Your task to perform on an android device: Open eBay Image 0: 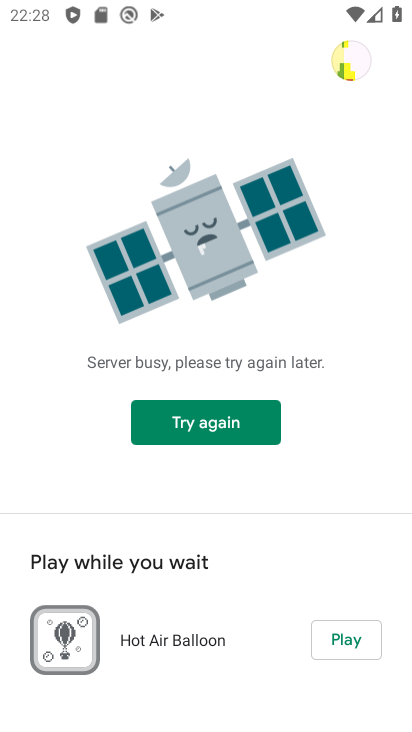
Step 0: press home button
Your task to perform on an android device: Open eBay Image 1: 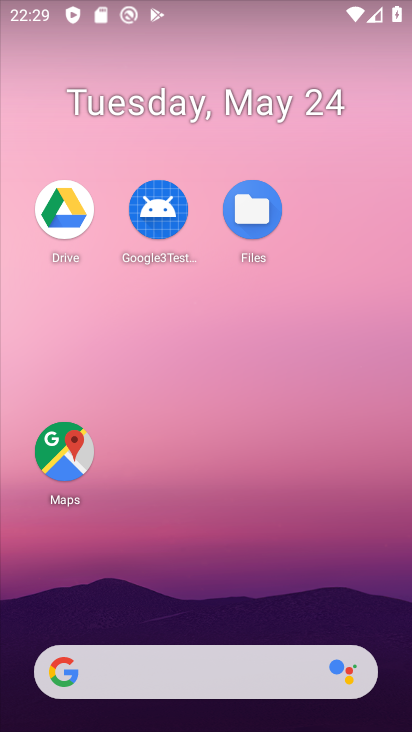
Step 1: drag from (235, 610) to (241, 90)
Your task to perform on an android device: Open eBay Image 2: 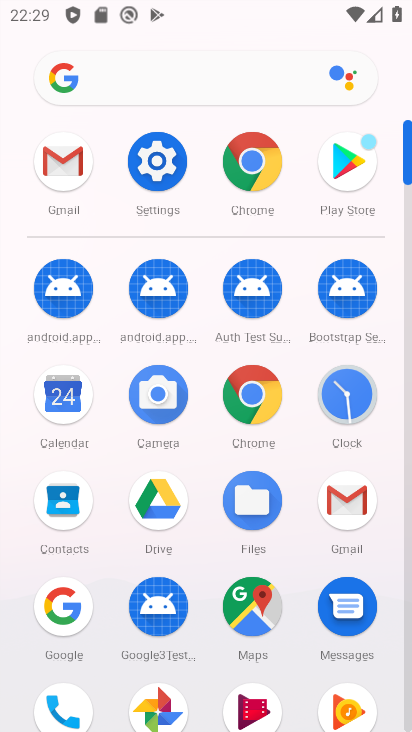
Step 2: click (260, 400)
Your task to perform on an android device: Open eBay Image 3: 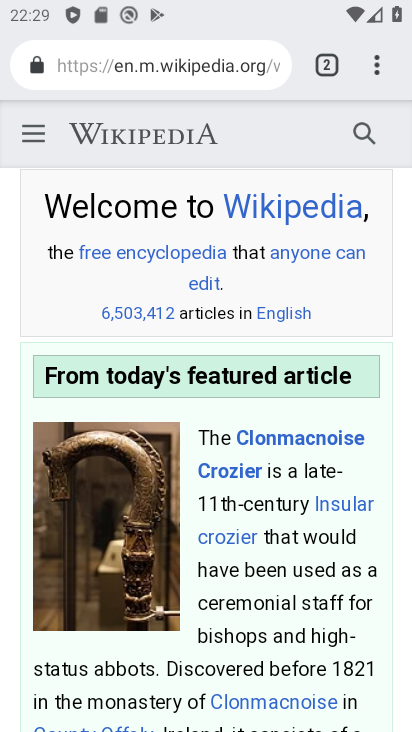
Step 3: click (323, 74)
Your task to perform on an android device: Open eBay Image 4: 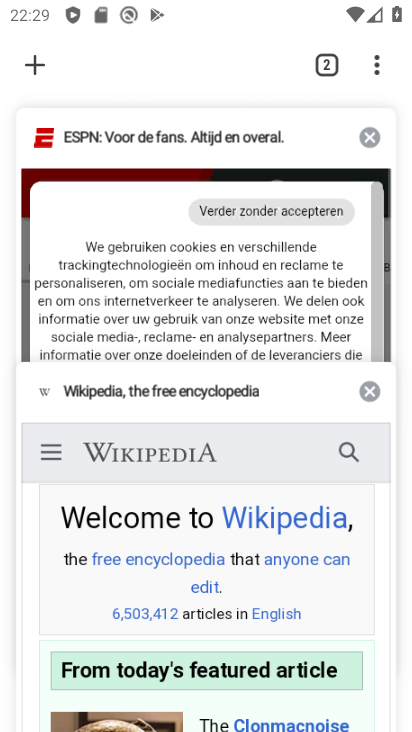
Step 4: click (34, 62)
Your task to perform on an android device: Open eBay Image 5: 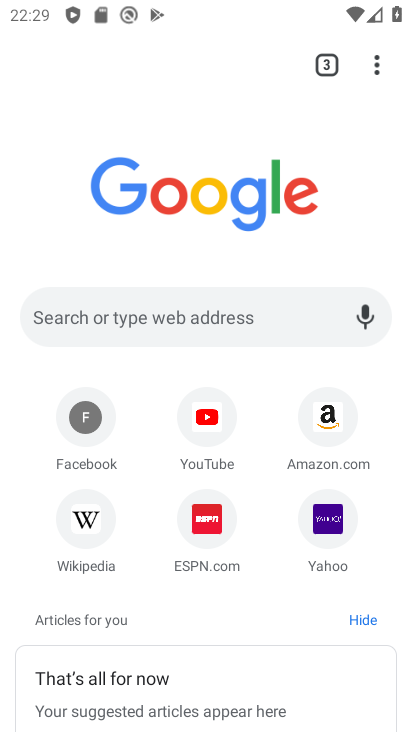
Step 5: click (253, 329)
Your task to perform on an android device: Open eBay Image 6: 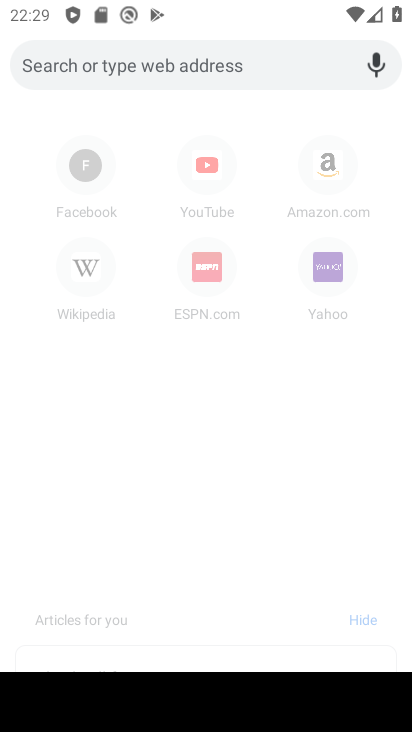
Step 6: type "ebay"
Your task to perform on an android device: Open eBay Image 7: 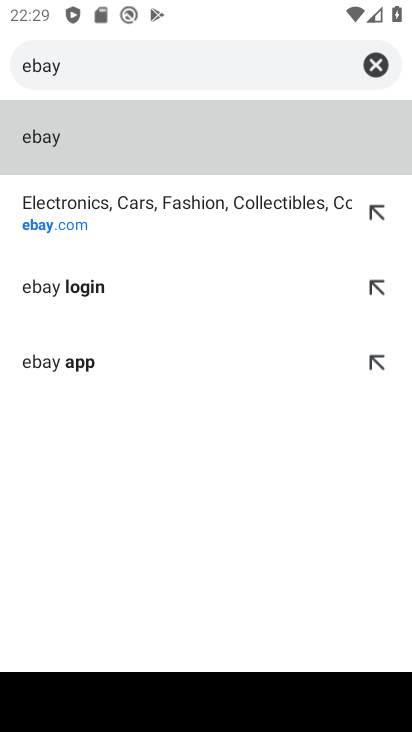
Step 7: click (190, 199)
Your task to perform on an android device: Open eBay Image 8: 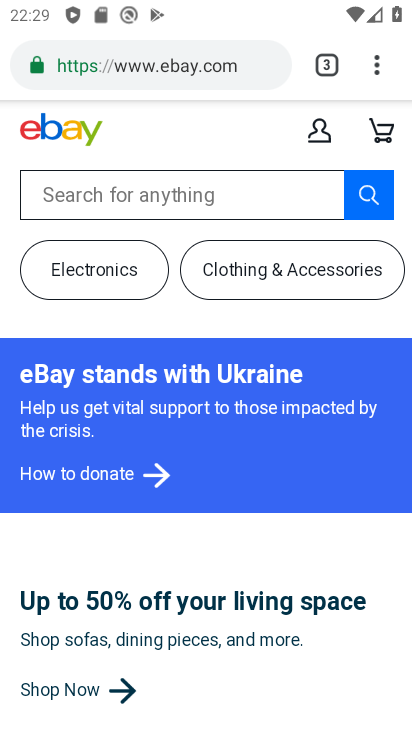
Step 8: task complete